Your task to perform on an android device: Open the calendar and show me this week's events Image 0: 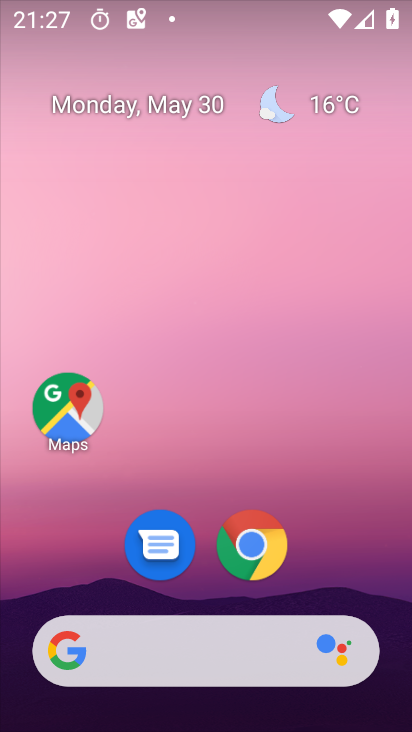
Step 0: click (152, 107)
Your task to perform on an android device: Open the calendar and show me this week's events Image 1: 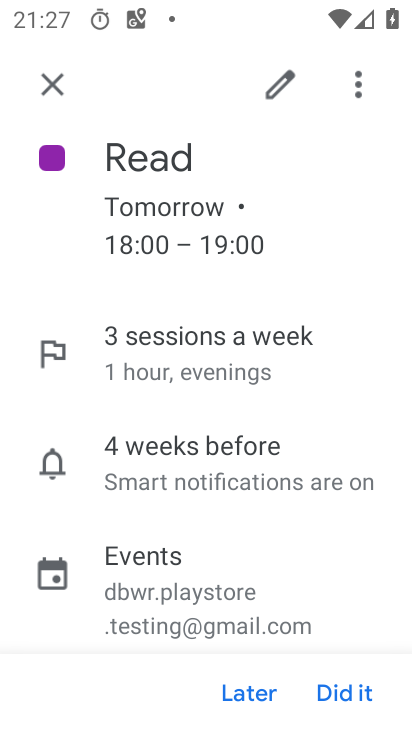
Step 1: click (58, 80)
Your task to perform on an android device: Open the calendar and show me this week's events Image 2: 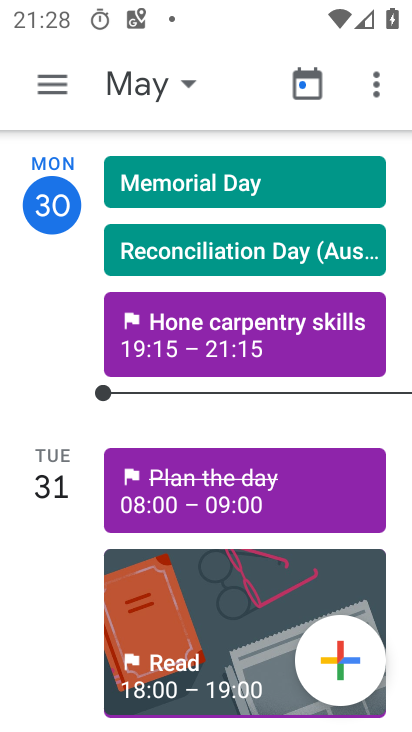
Step 2: click (52, 87)
Your task to perform on an android device: Open the calendar and show me this week's events Image 3: 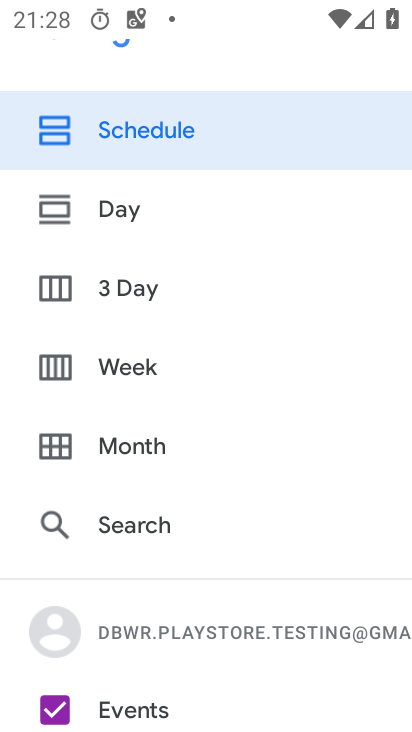
Step 3: click (121, 368)
Your task to perform on an android device: Open the calendar and show me this week's events Image 4: 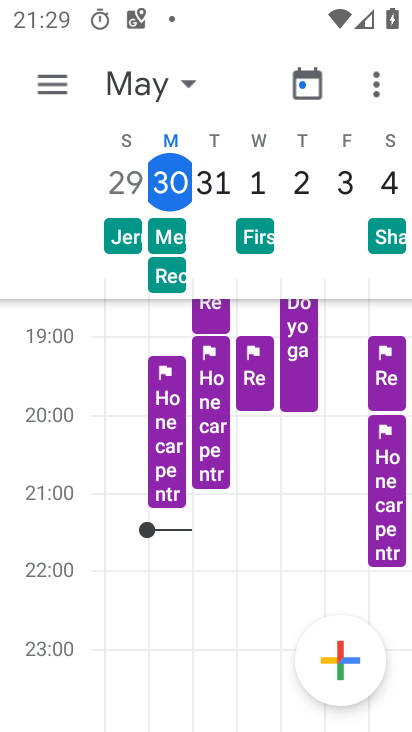
Step 4: task complete